Your task to perform on an android device: Go to eBay Image 0: 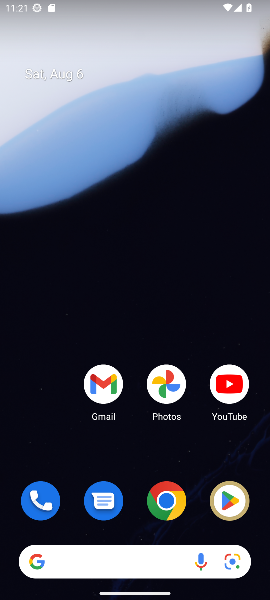
Step 0: click (171, 503)
Your task to perform on an android device: Go to eBay Image 1: 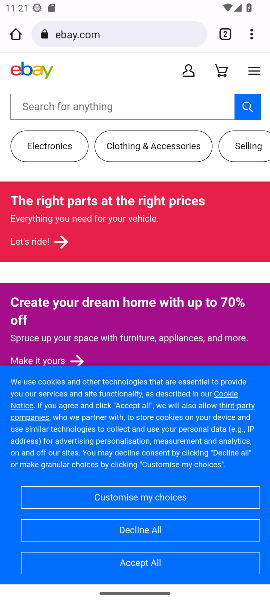
Step 1: task complete